Your task to perform on an android device: check android version Image 0: 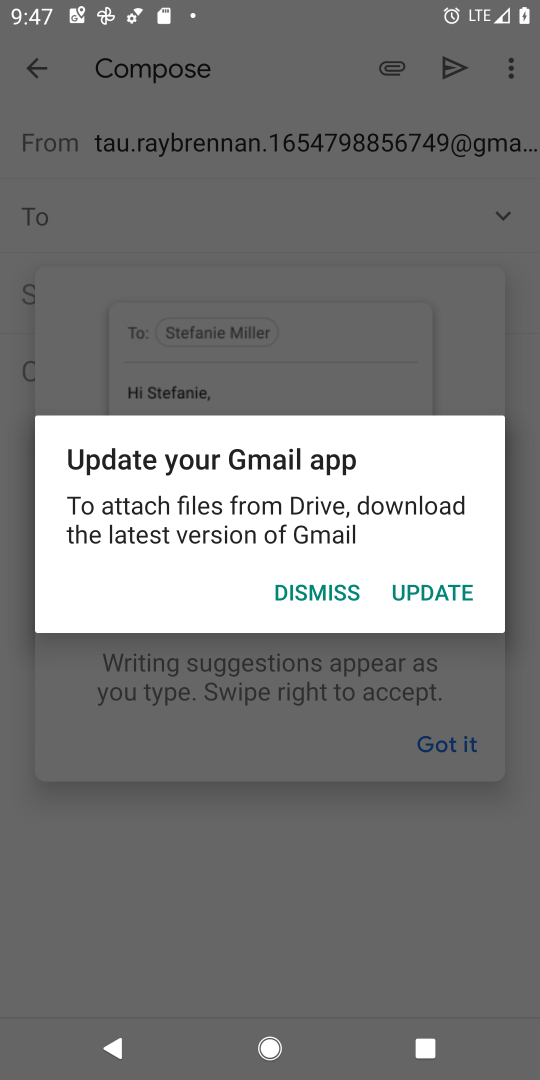
Step 0: press home button
Your task to perform on an android device: check android version Image 1: 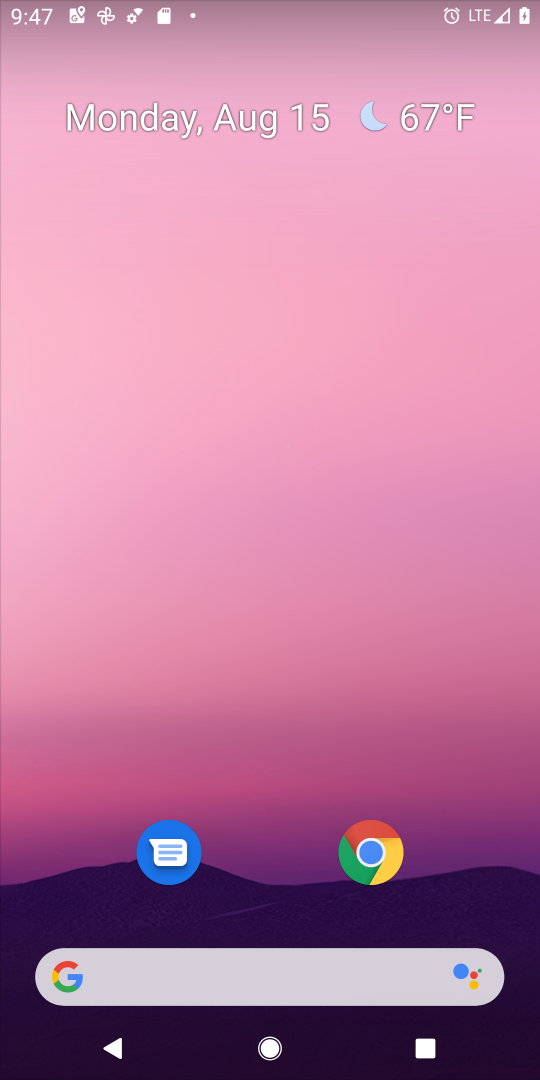
Step 1: drag from (239, 986) to (358, 240)
Your task to perform on an android device: check android version Image 2: 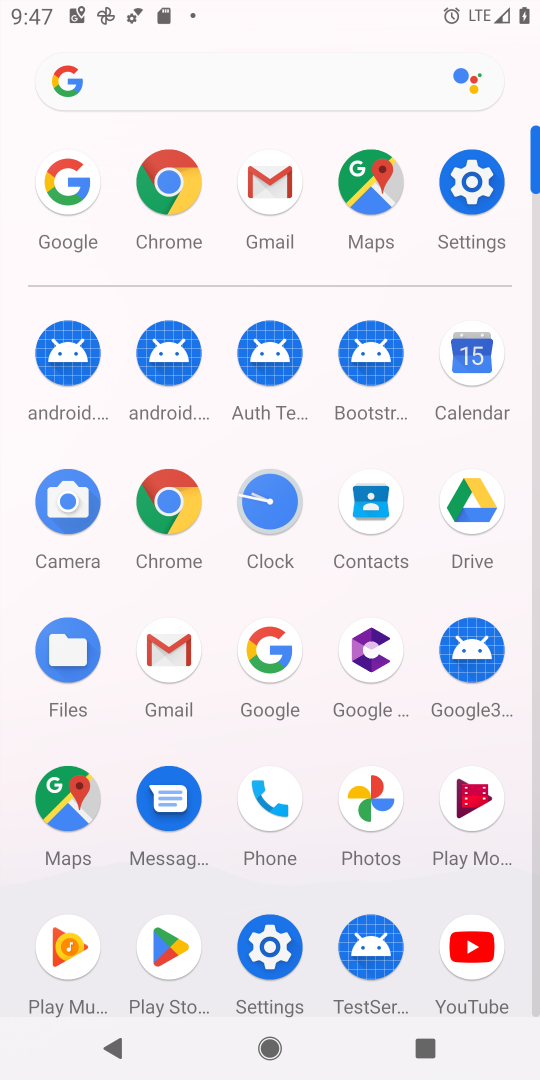
Step 2: click (471, 184)
Your task to perform on an android device: check android version Image 3: 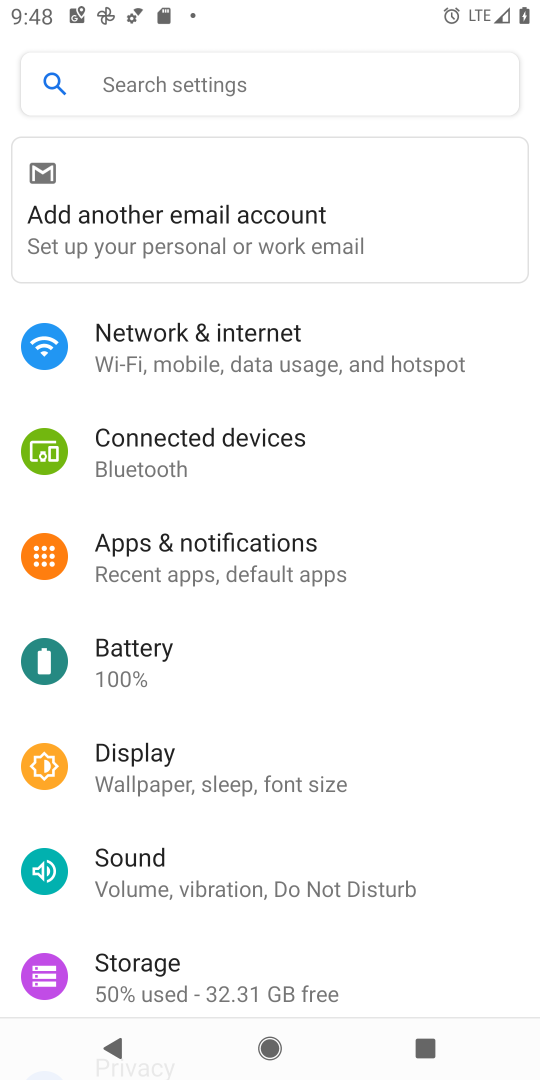
Step 3: drag from (248, 639) to (302, 504)
Your task to perform on an android device: check android version Image 4: 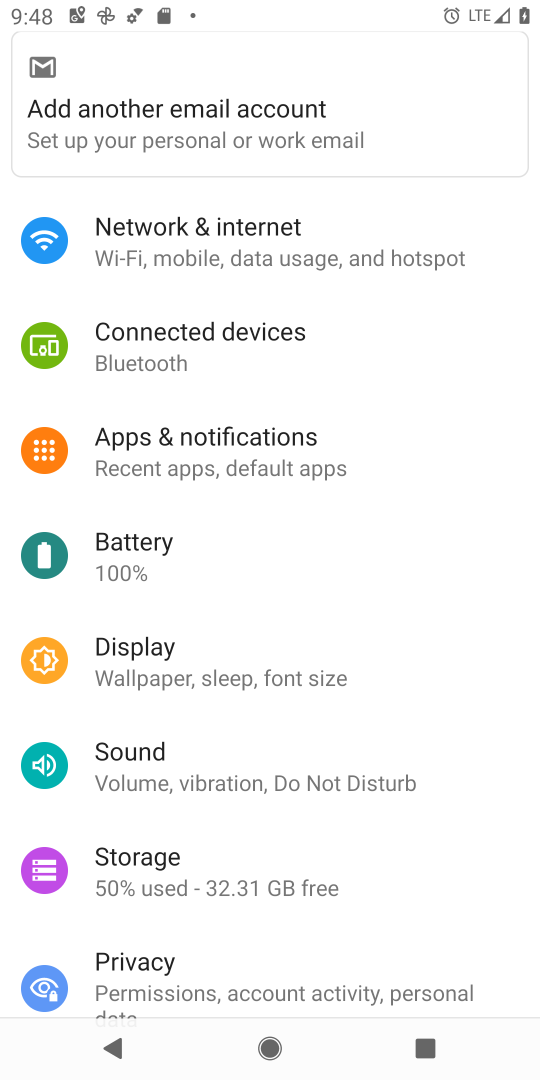
Step 4: drag from (224, 611) to (288, 454)
Your task to perform on an android device: check android version Image 5: 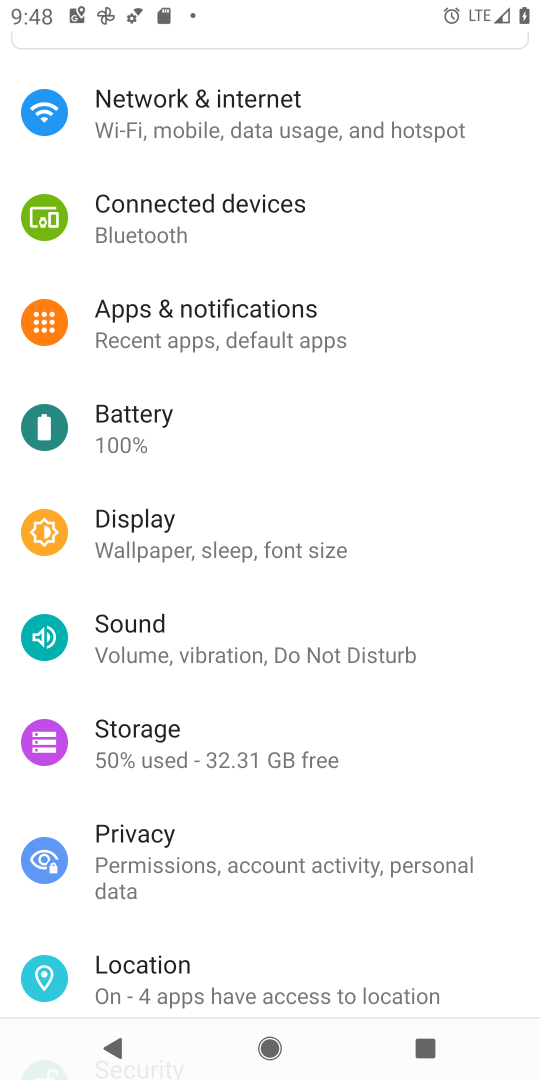
Step 5: drag from (199, 599) to (287, 427)
Your task to perform on an android device: check android version Image 6: 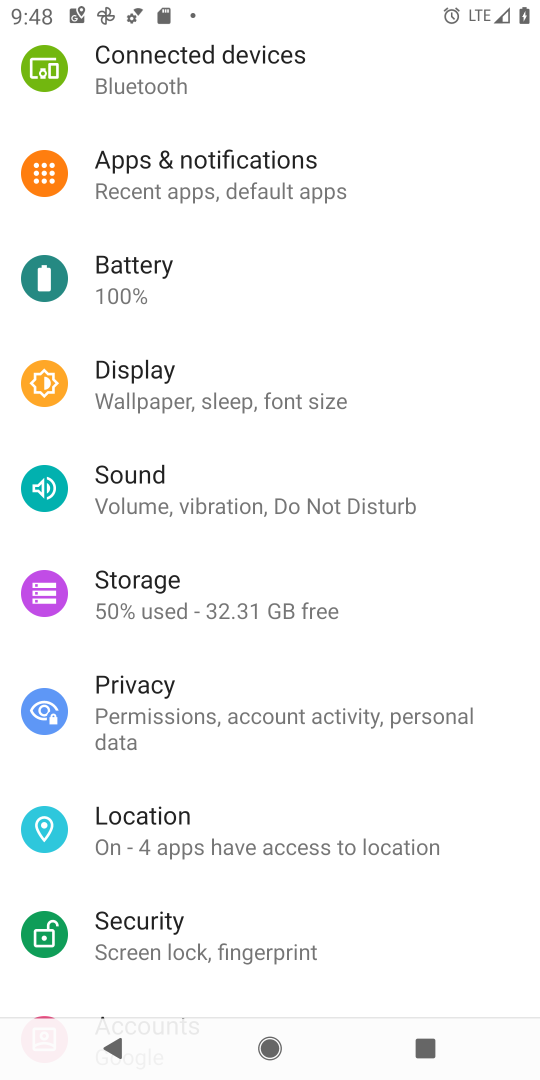
Step 6: drag from (207, 567) to (300, 412)
Your task to perform on an android device: check android version Image 7: 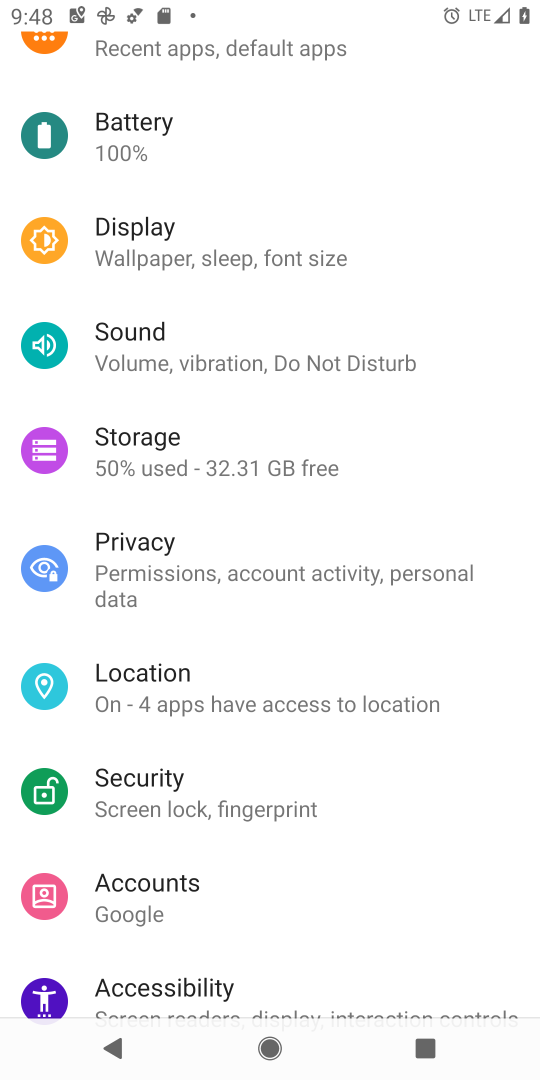
Step 7: drag from (198, 609) to (350, 392)
Your task to perform on an android device: check android version Image 8: 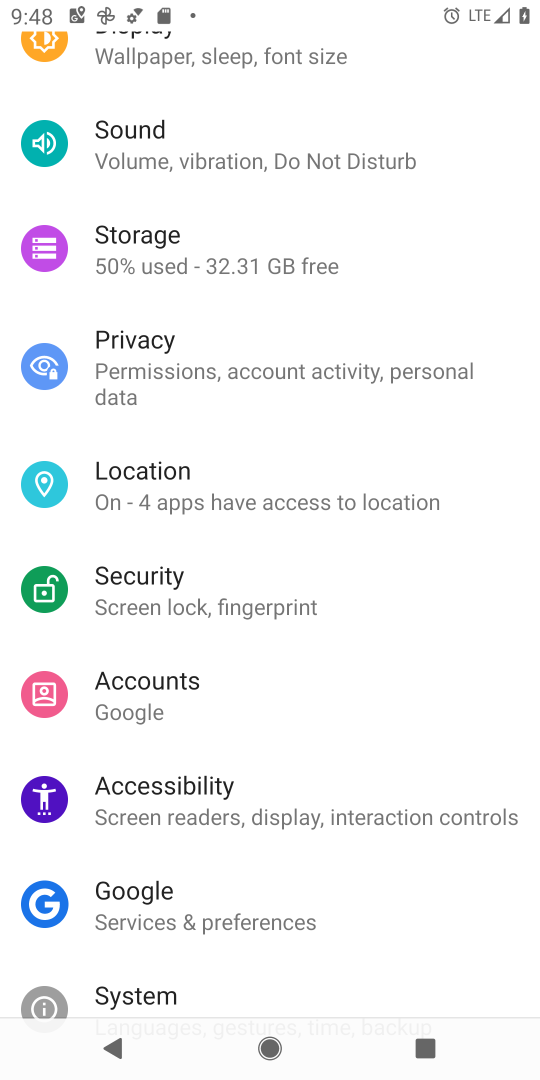
Step 8: drag from (106, 646) to (272, 439)
Your task to perform on an android device: check android version Image 9: 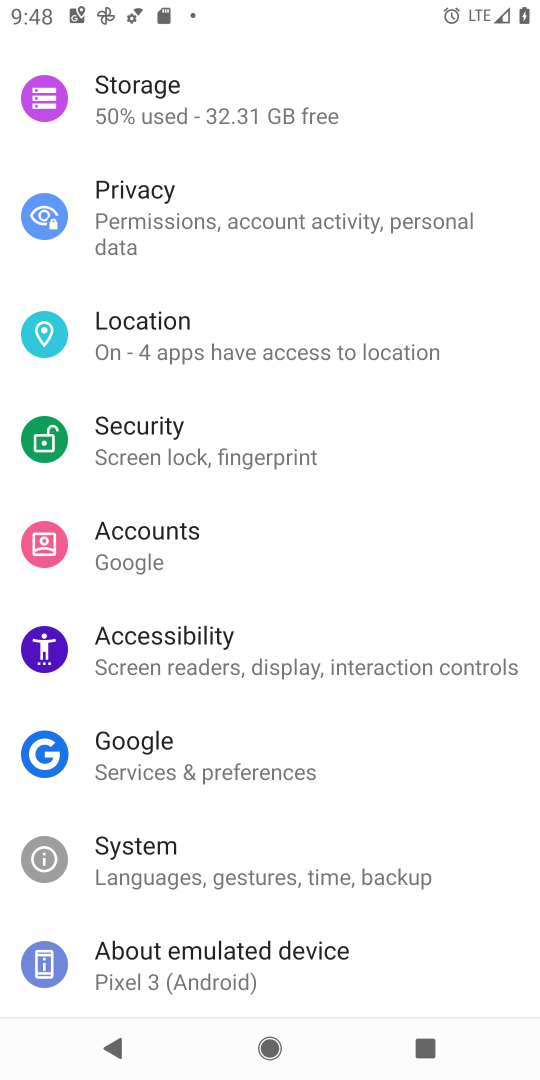
Step 9: drag from (173, 703) to (280, 528)
Your task to perform on an android device: check android version Image 10: 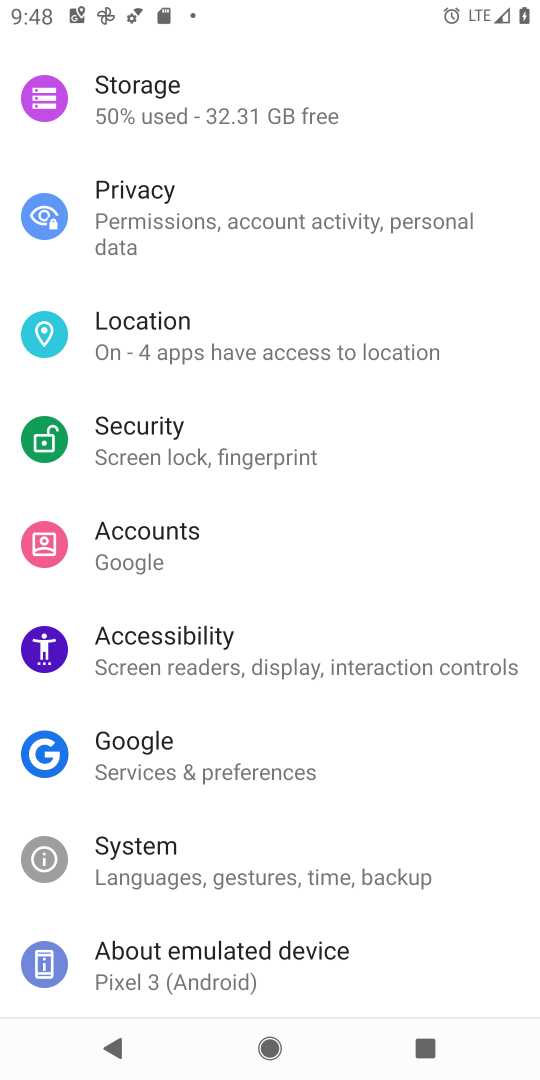
Step 10: click (183, 950)
Your task to perform on an android device: check android version Image 11: 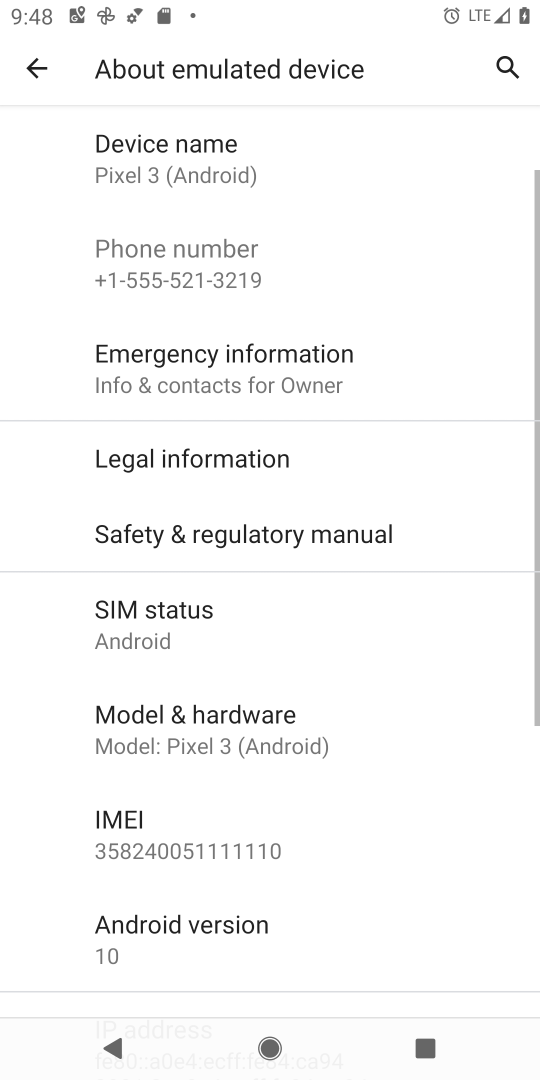
Step 11: click (223, 920)
Your task to perform on an android device: check android version Image 12: 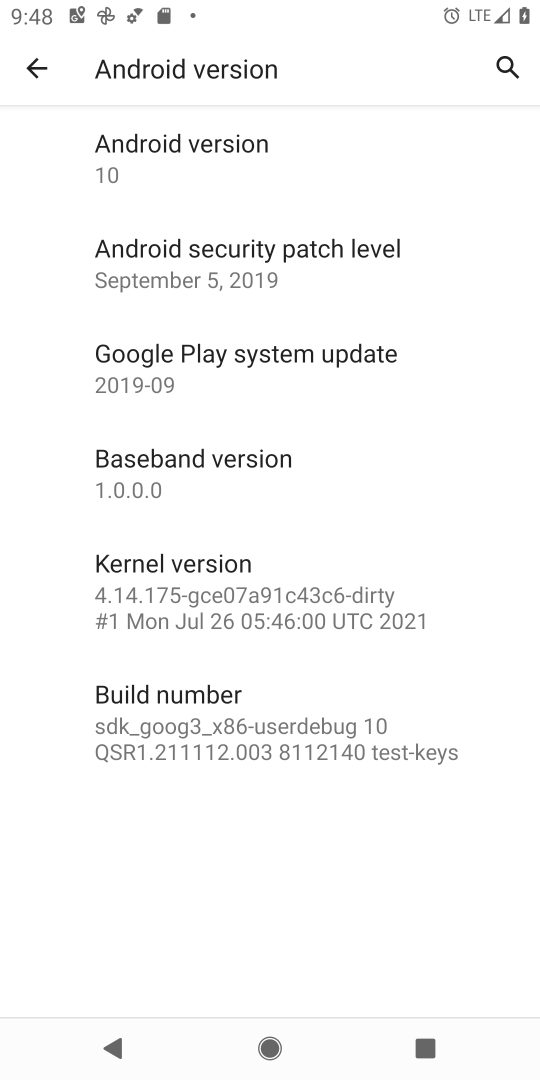
Step 12: task complete